Your task to perform on an android device: Do I have any events tomorrow? Image 0: 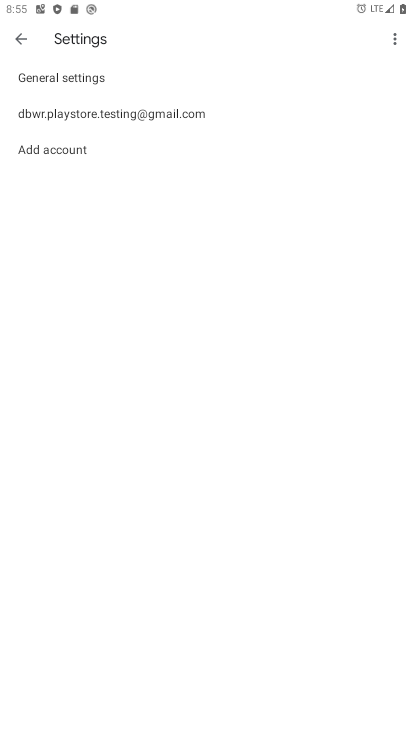
Step 0: press home button
Your task to perform on an android device: Do I have any events tomorrow? Image 1: 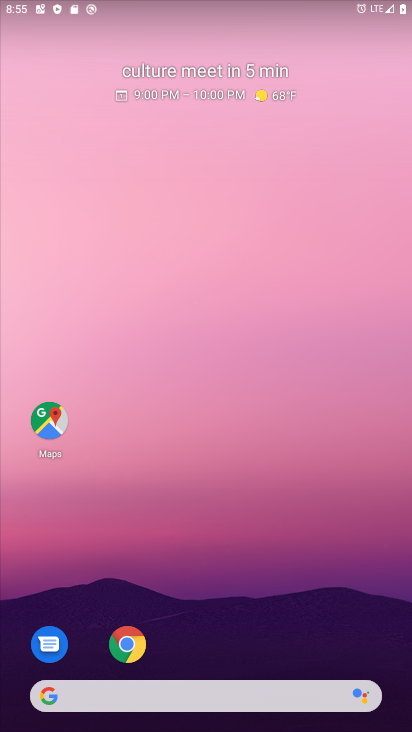
Step 1: drag from (240, 706) to (199, 180)
Your task to perform on an android device: Do I have any events tomorrow? Image 2: 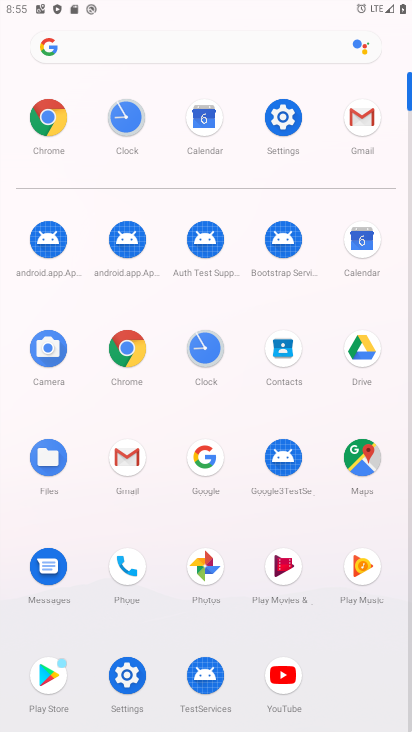
Step 2: click (116, 48)
Your task to perform on an android device: Do I have any events tomorrow? Image 3: 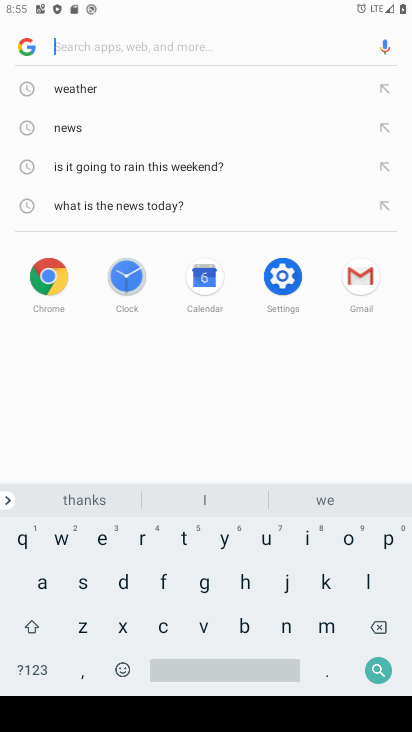
Step 3: click (210, 284)
Your task to perform on an android device: Do I have any events tomorrow? Image 4: 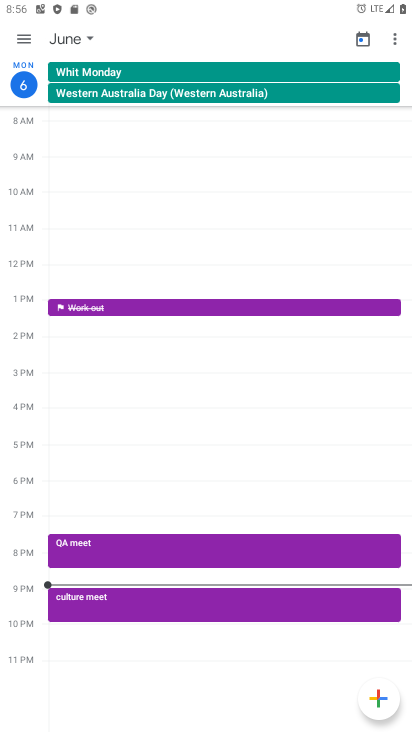
Step 4: click (19, 34)
Your task to perform on an android device: Do I have any events tomorrow? Image 5: 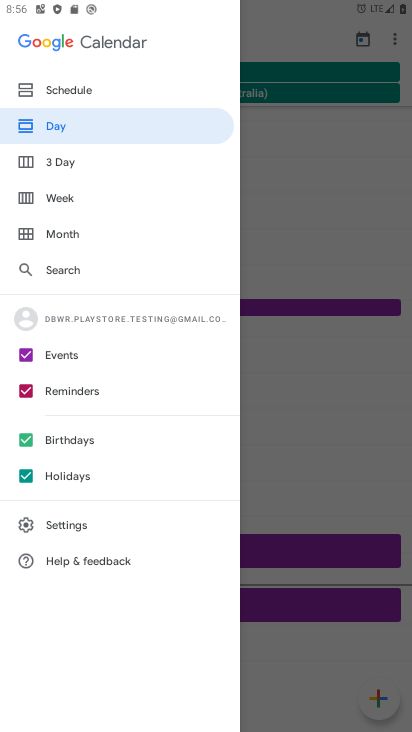
Step 5: click (70, 80)
Your task to perform on an android device: Do I have any events tomorrow? Image 6: 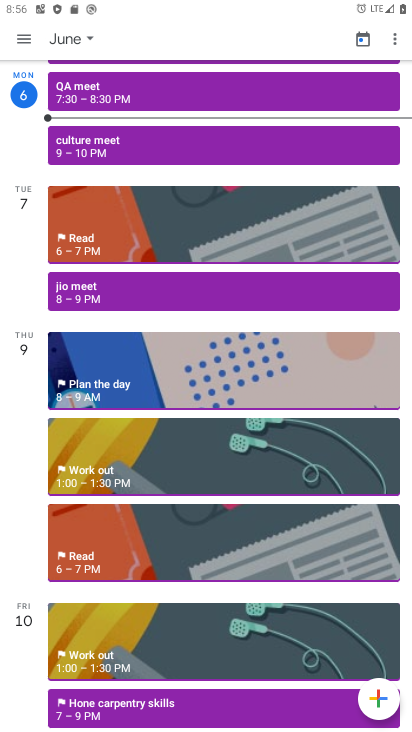
Step 6: task complete